Your task to perform on an android device: Open privacy settings Image 0: 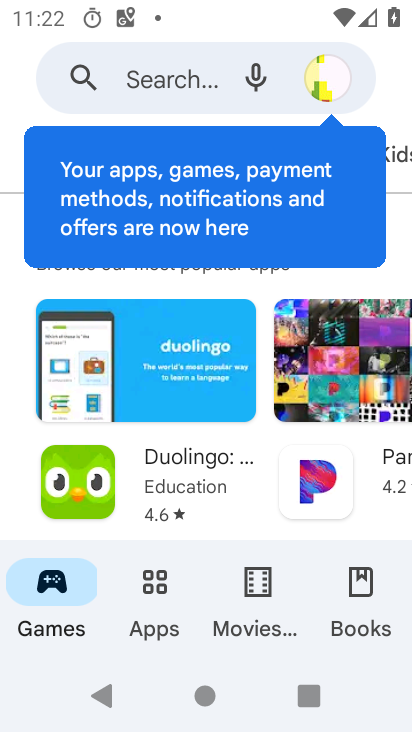
Step 0: press home button
Your task to perform on an android device: Open privacy settings Image 1: 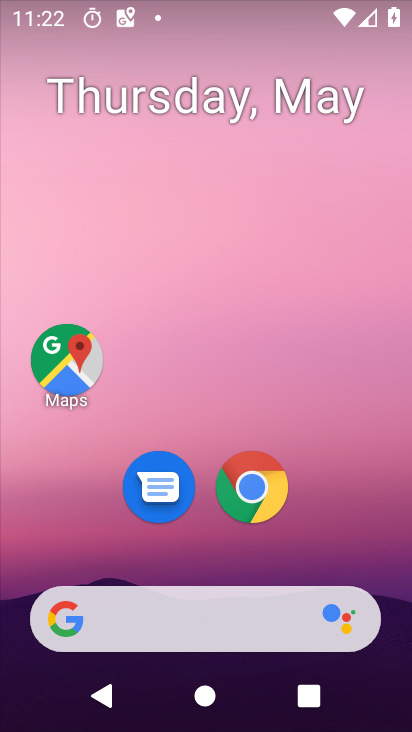
Step 1: drag from (332, 546) to (342, 185)
Your task to perform on an android device: Open privacy settings Image 2: 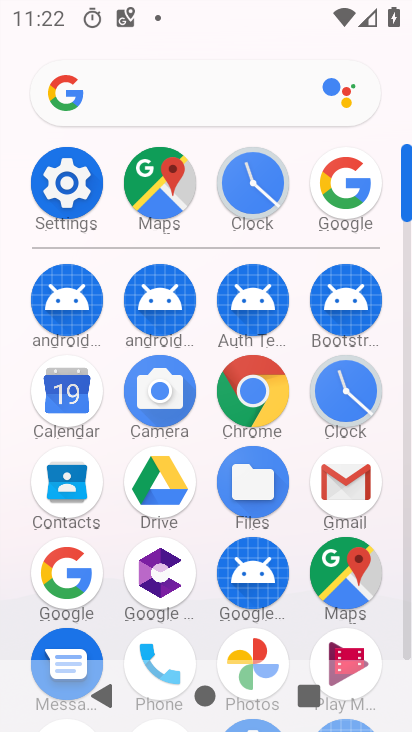
Step 2: click (76, 178)
Your task to perform on an android device: Open privacy settings Image 3: 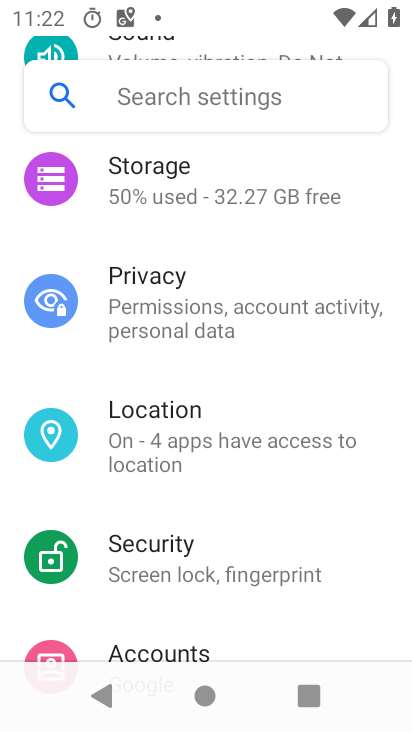
Step 3: drag from (285, 265) to (271, 548)
Your task to perform on an android device: Open privacy settings Image 4: 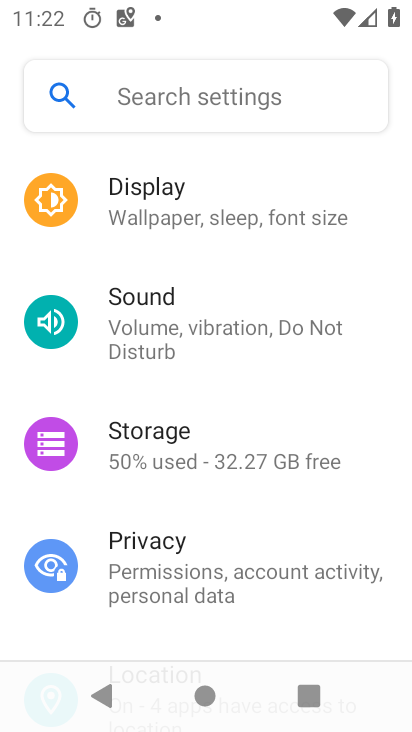
Step 4: click (229, 564)
Your task to perform on an android device: Open privacy settings Image 5: 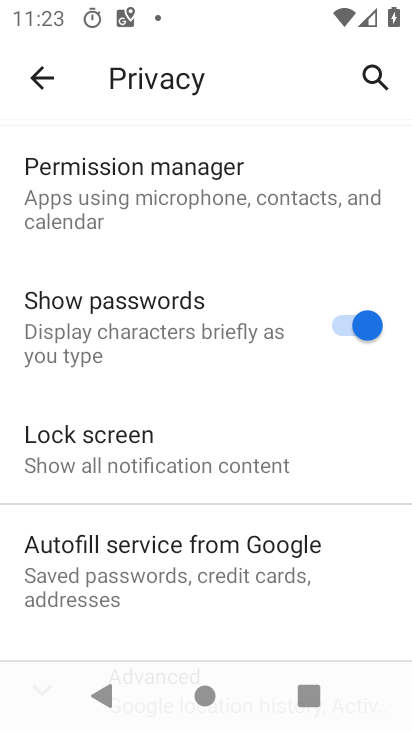
Step 5: task complete